Your task to perform on an android device: When is my next appointment? Image 0: 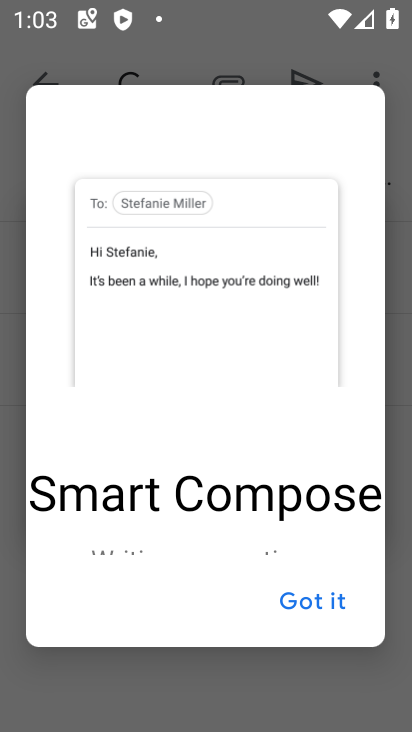
Step 0: press home button
Your task to perform on an android device: When is my next appointment? Image 1: 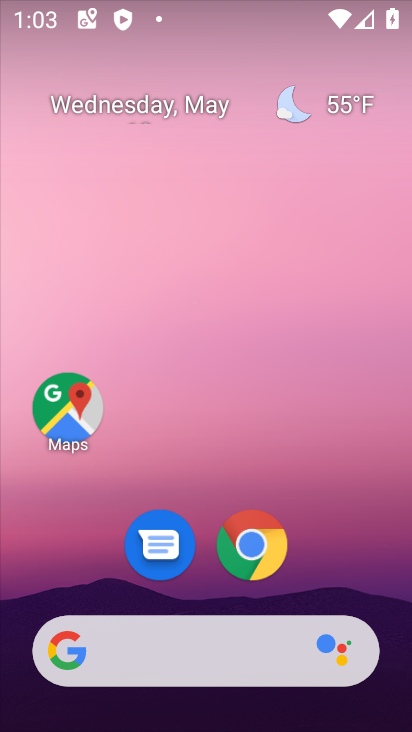
Step 1: drag from (346, 547) to (306, 55)
Your task to perform on an android device: When is my next appointment? Image 2: 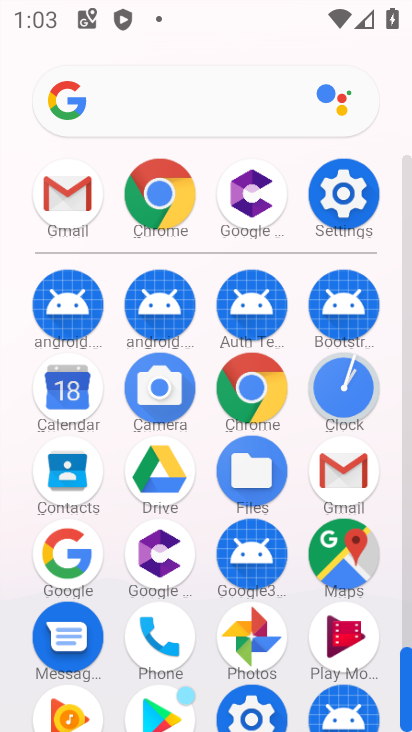
Step 2: click (74, 399)
Your task to perform on an android device: When is my next appointment? Image 3: 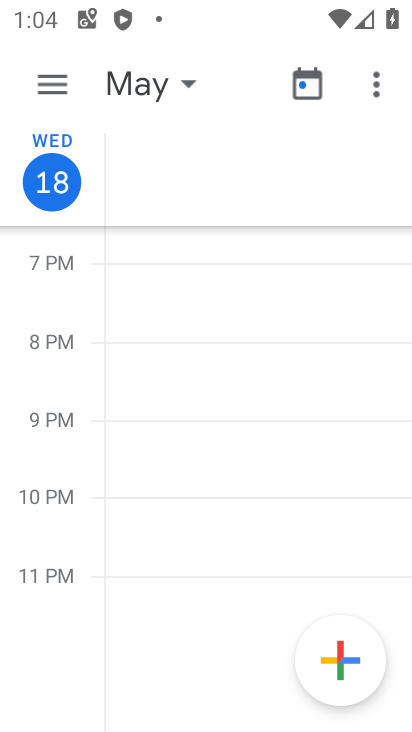
Step 3: click (66, 84)
Your task to perform on an android device: When is my next appointment? Image 4: 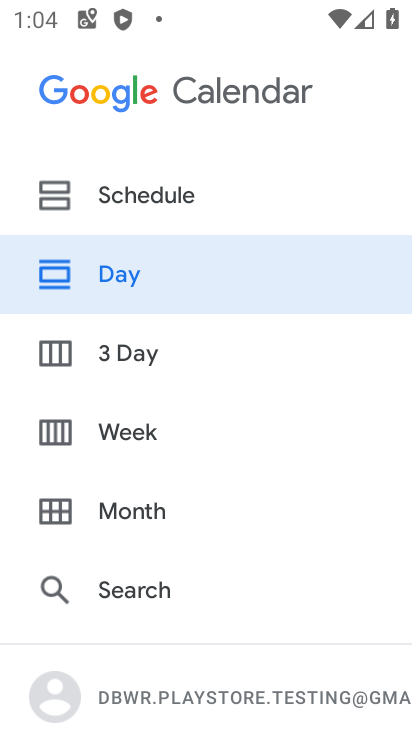
Step 4: click (123, 198)
Your task to perform on an android device: When is my next appointment? Image 5: 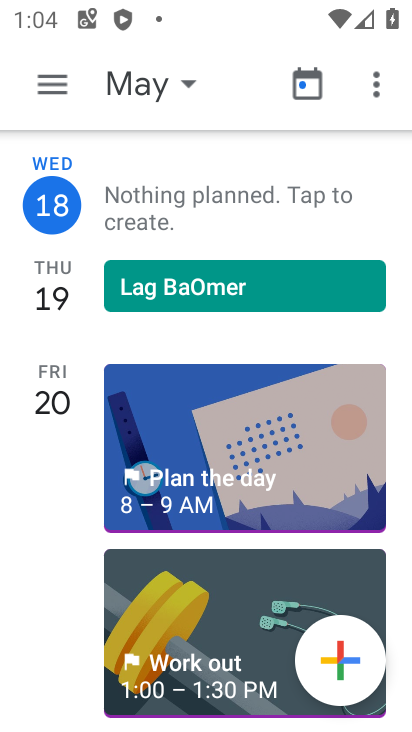
Step 5: task complete